Your task to perform on an android device: Go to privacy settings Image 0: 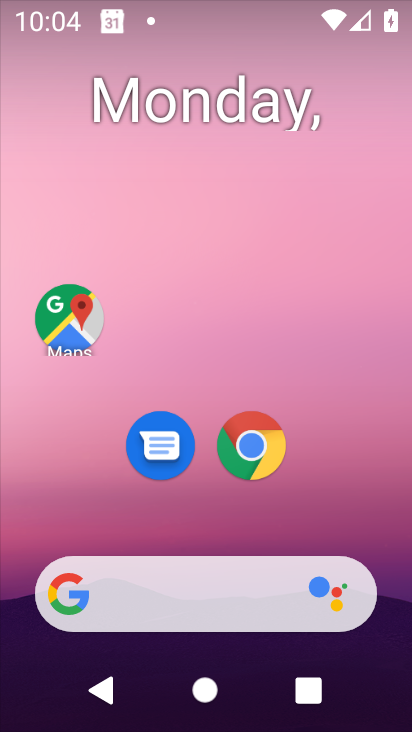
Step 0: drag from (261, 676) to (345, 130)
Your task to perform on an android device: Go to privacy settings Image 1: 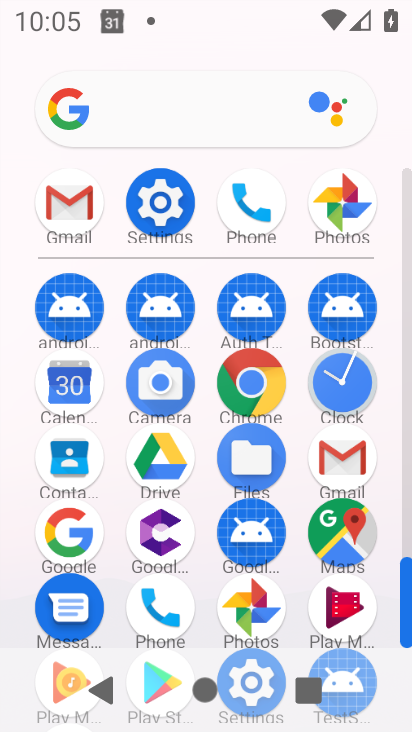
Step 1: click (140, 196)
Your task to perform on an android device: Go to privacy settings Image 2: 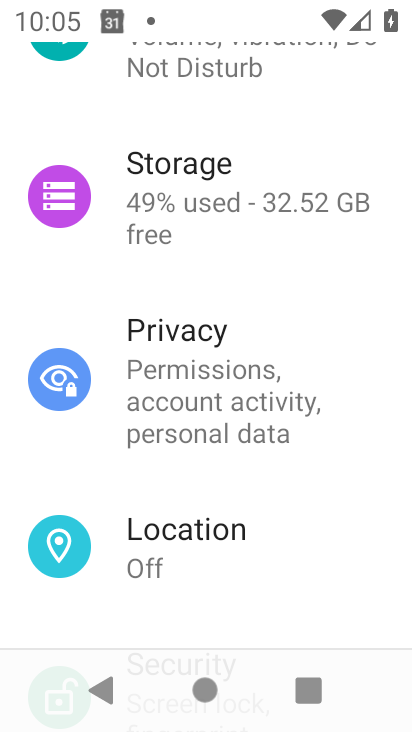
Step 2: click (261, 360)
Your task to perform on an android device: Go to privacy settings Image 3: 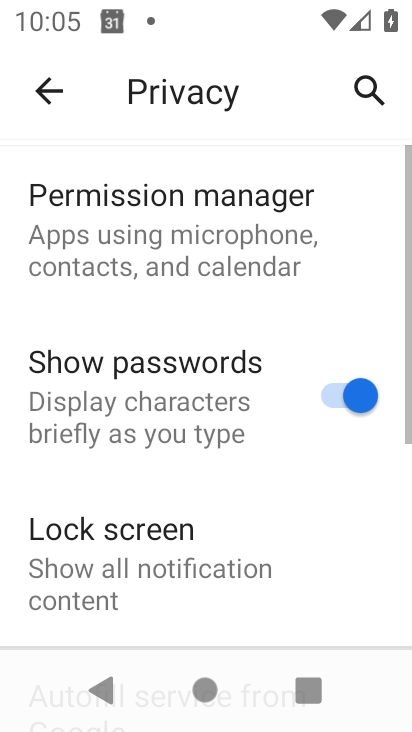
Step 3: task complete